Your task to perform on an android device: Turn on the flashlight Image 0: 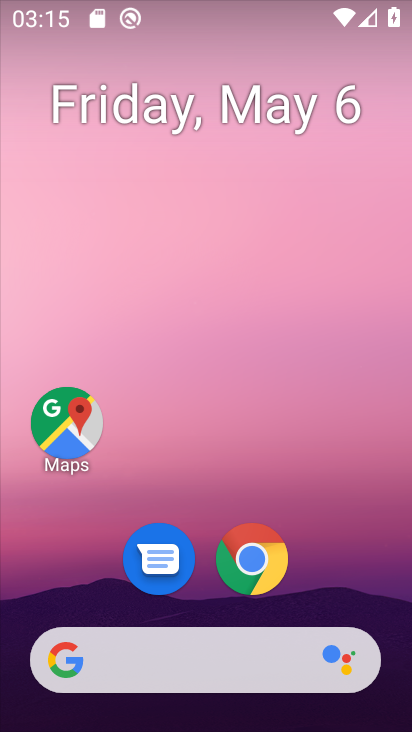
Step 0: drag from (299, 593) to (328, 49)
Your task to perform on an android device: Turn on the flashlight Image 1: 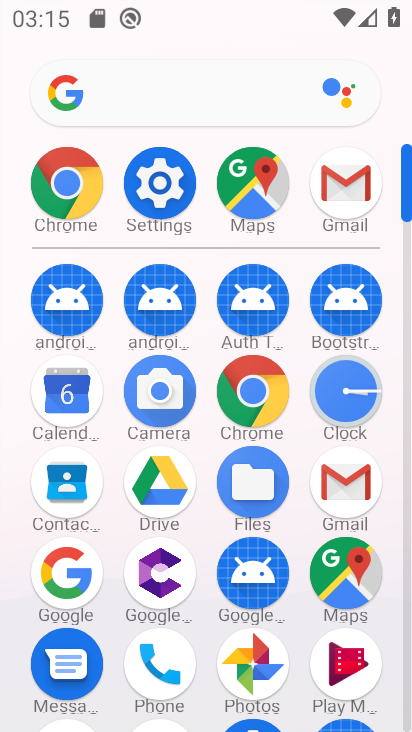
Step 1: task complete